Your task to perform on an android device: Open Amazon Image 0: 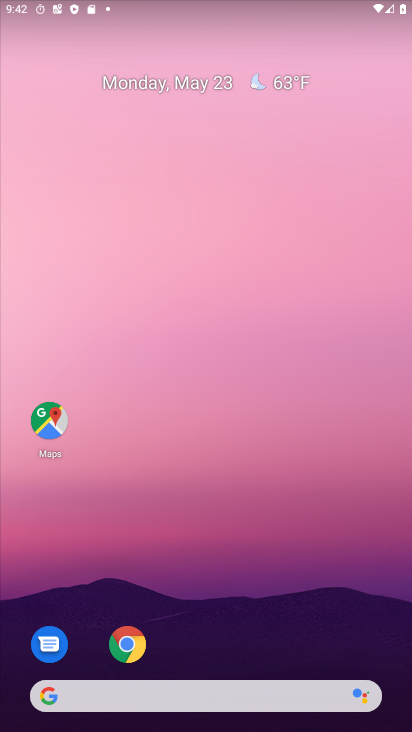
Step 0: click (113, 636)
Your task to perform on an android device: Open Amazon Image 1: 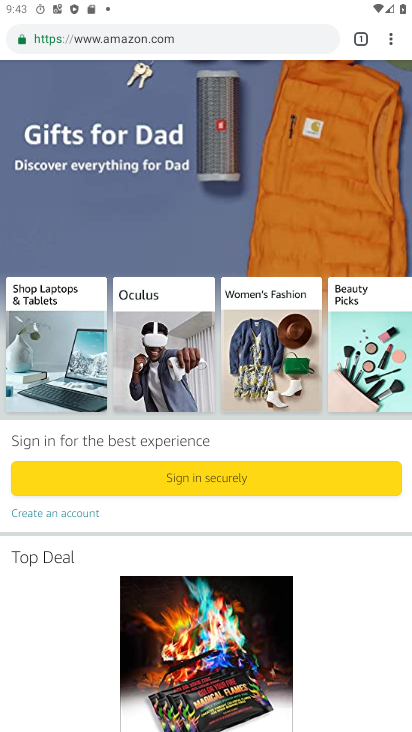
Step 1: task complete